Your task to perform on an android device: toggle priority inbox in the gmail app Image 0: 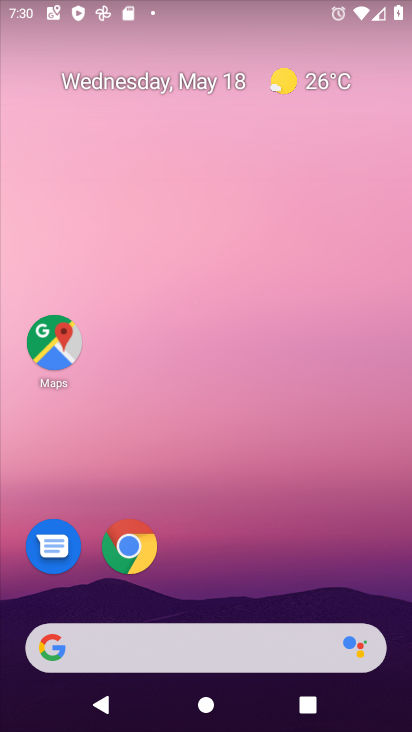
Step 0: drag from (381, 628) to (296, 11)
Your task to perform on an android device: toggle priority inbox in the gmail app Image 1: 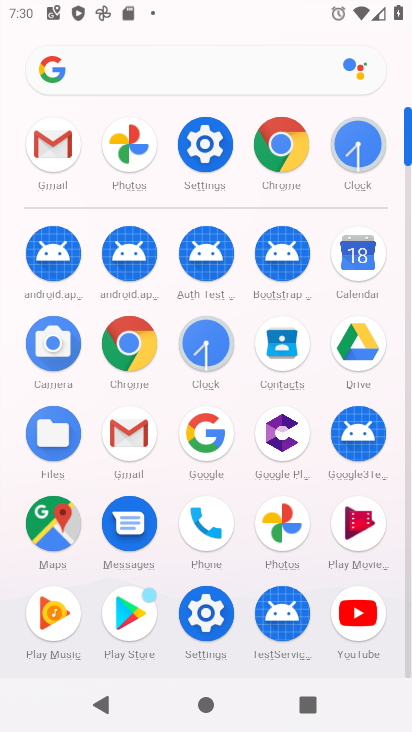
Step 1: click (135, 418)
Your task to perform on an android device: toggle priority inbox in the gmail app Image 2: 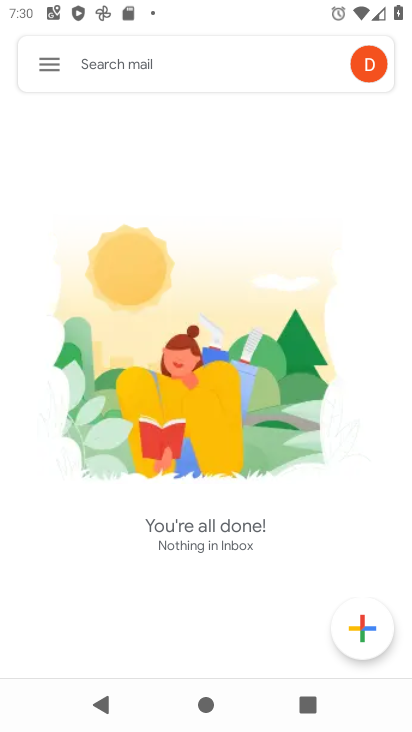
Step 2: click (45, 65)
Your task to perform on an android device: toggle priority inbox in the gmail app Image 3: 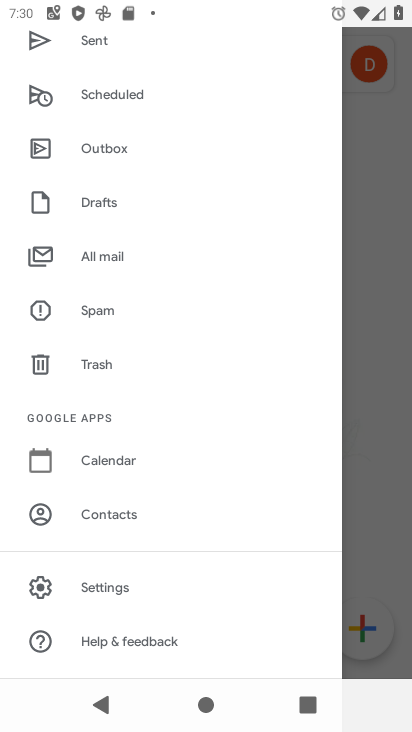
Step 3: click (180, 595)
Your task to perform on an android device: toggle priority inbox in the gmail app Image 4: 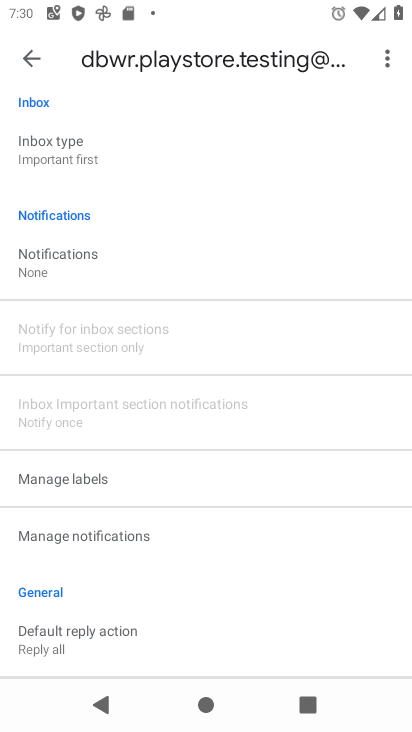
Step 4: drag from (101, 165) to (171, 625)
Your task to perform on an android device: toggle priority inbox in the gmail app Image 5: 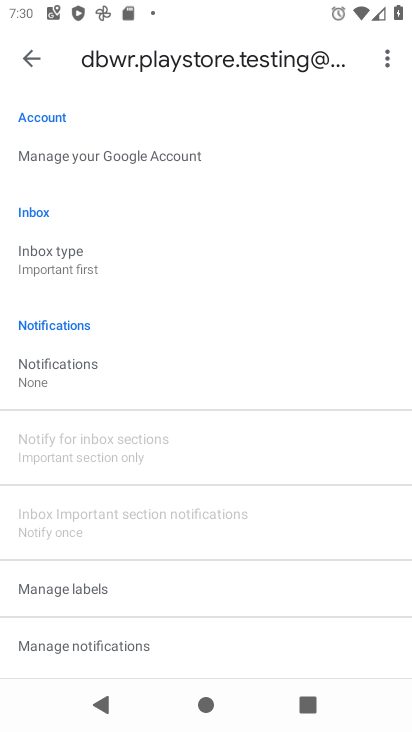
Step 5: click (149, 263)
Your task to perform on an android device: toggle priority inbox in the gmail app Image 6: 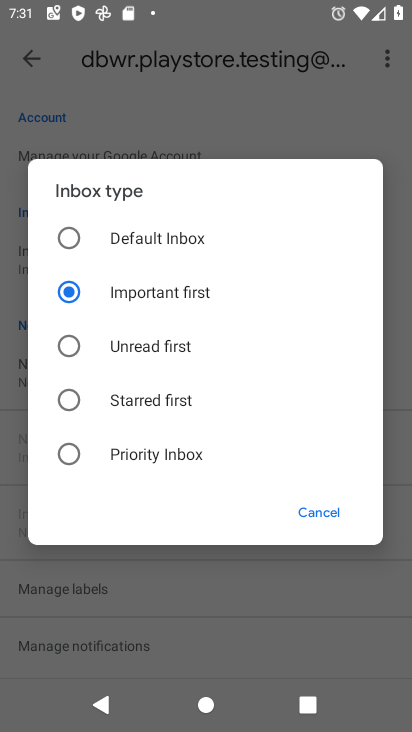
Step 6: task complete